Your task to perform on an android device: Open maps Image 0: 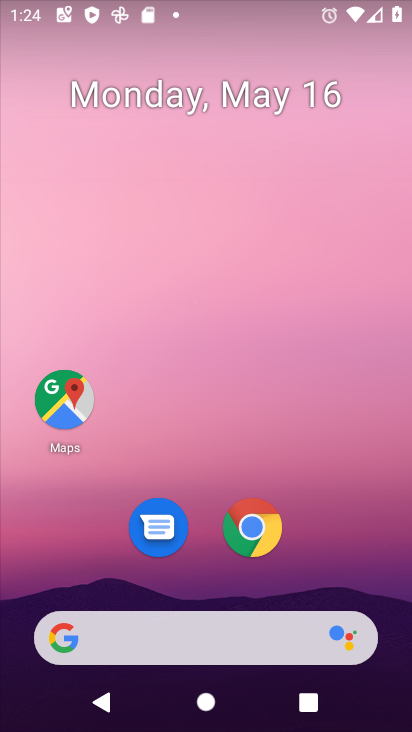
Step 0: click (97, 408)
Your task to perform on an android device: Open maps Image 1: 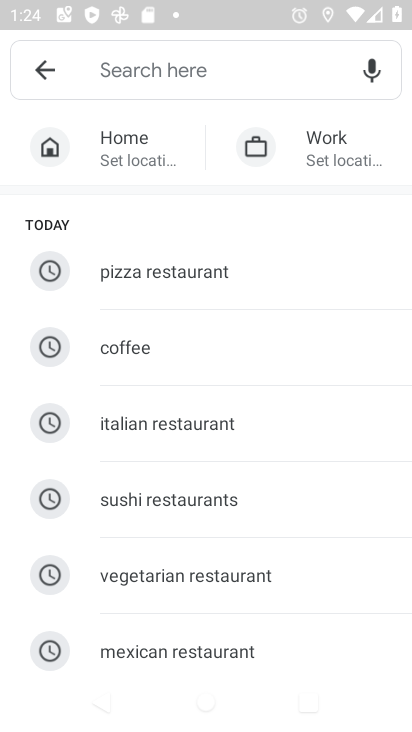
Step 1: task complete